Your task to perform on an android device: move a message to another label in the gmail app Image 0: 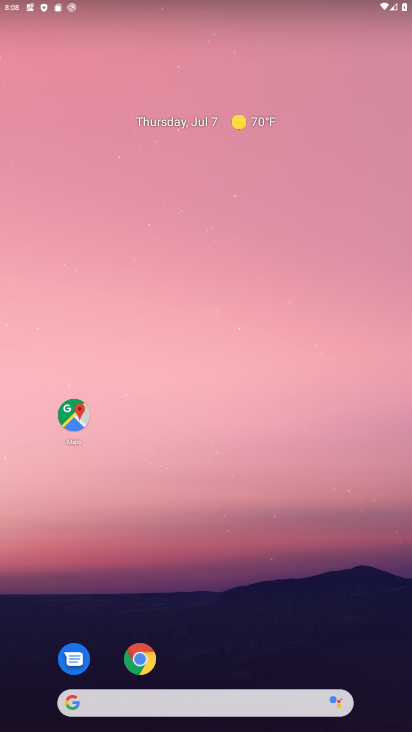
Step 0: drag from (203, 663) to (294, 206)
Your task to perform on an android device: move a message to another label in the gmail app Image 1: 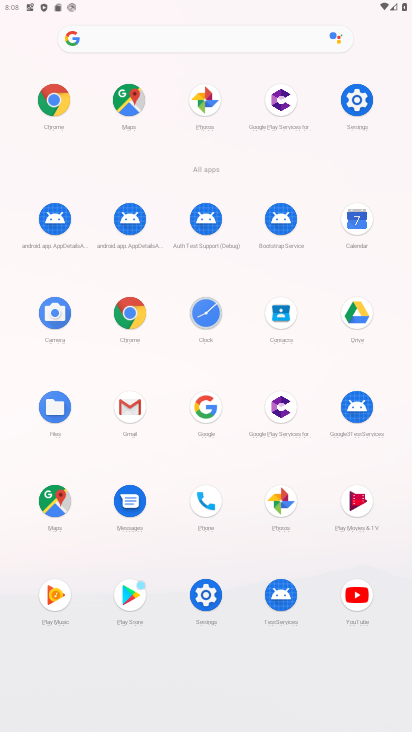
Step 1: click (152, 409)
Your task to perform on an android device: move a message to another label in the gmail app Image 2: 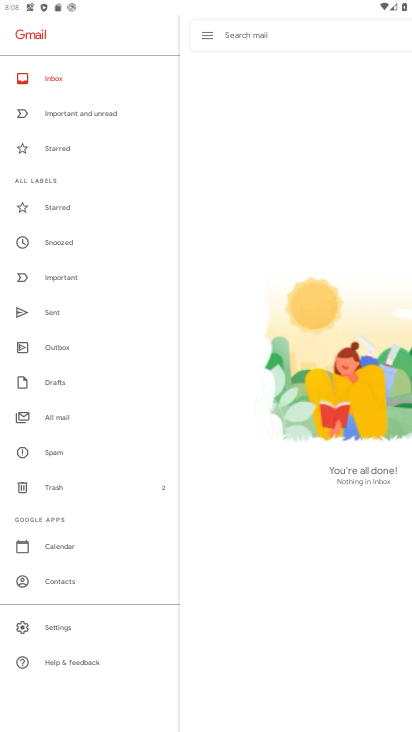
Step 2: task complete